Your task to perform on an android device: toggle airplane mode Image 0: 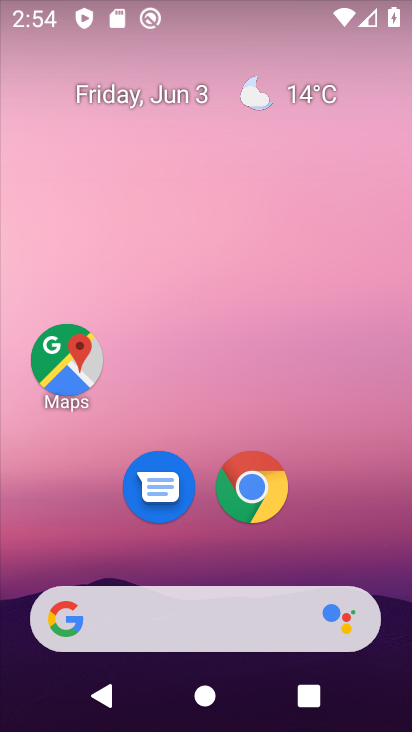
Step 0: drag from (312, 131) to (234, 583)
Your task to perform on an android device: toggle airplane mode Image 1: 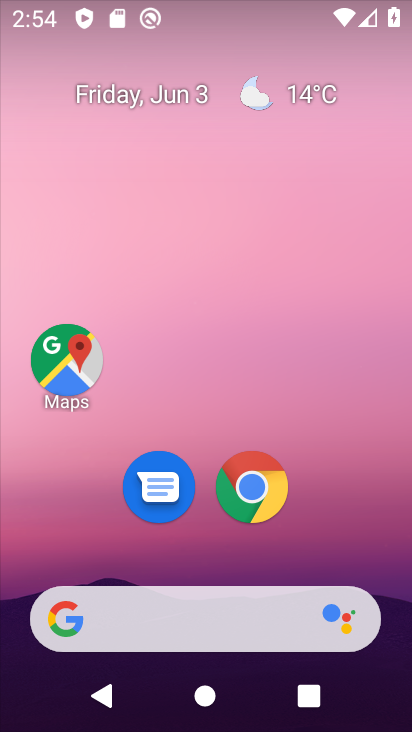
Step 1: drag from (344, 6) to (192, 535)
Your task to perform on an android device: toggle airplane mode Image 2: 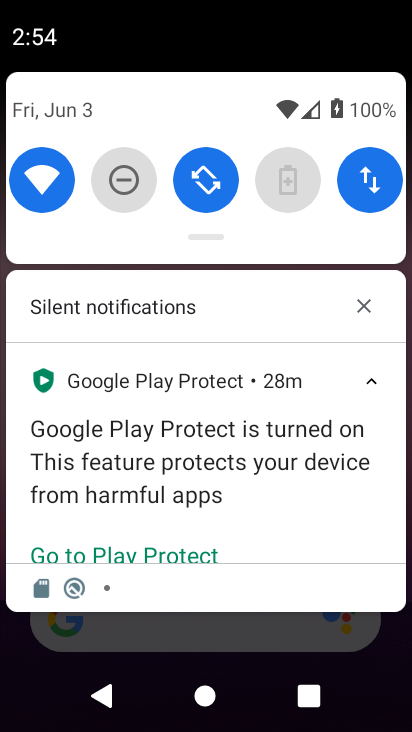
Step 2: drag from (199, 221) to (204, 626)
Your task to perform on an android device: toggle airplane mode Image 3: 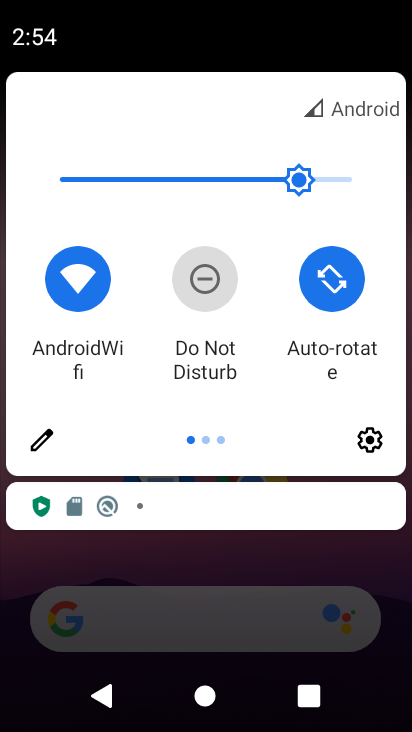
Step 3: drag from (354, 288) to (39, 245)
Your task to perform on an android device: toggle airplane mode Image 4: 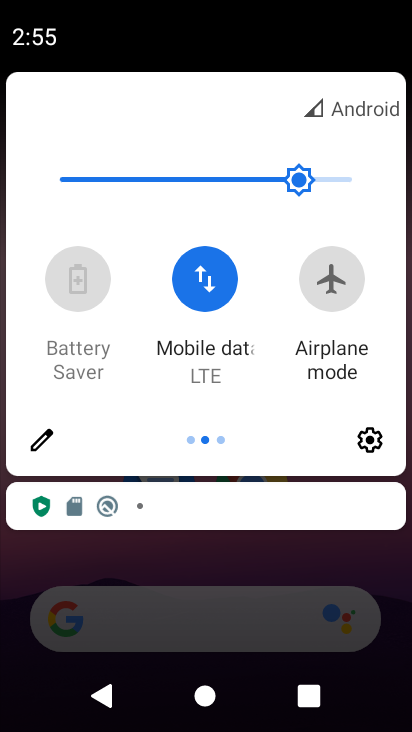
Step 4: click (320, 278)
Your task to perform on an android device: toggle airplane mode Image 5: 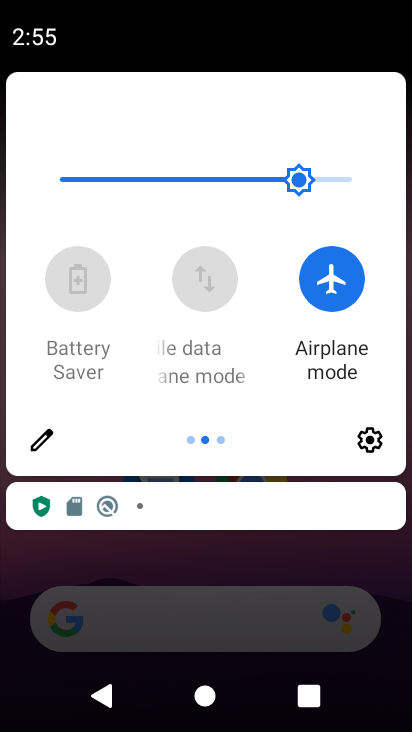
Step 5: task complete